Your task to perform on an android device: open app "DoorDash - Dasher" (install if not already installed) Image 0: 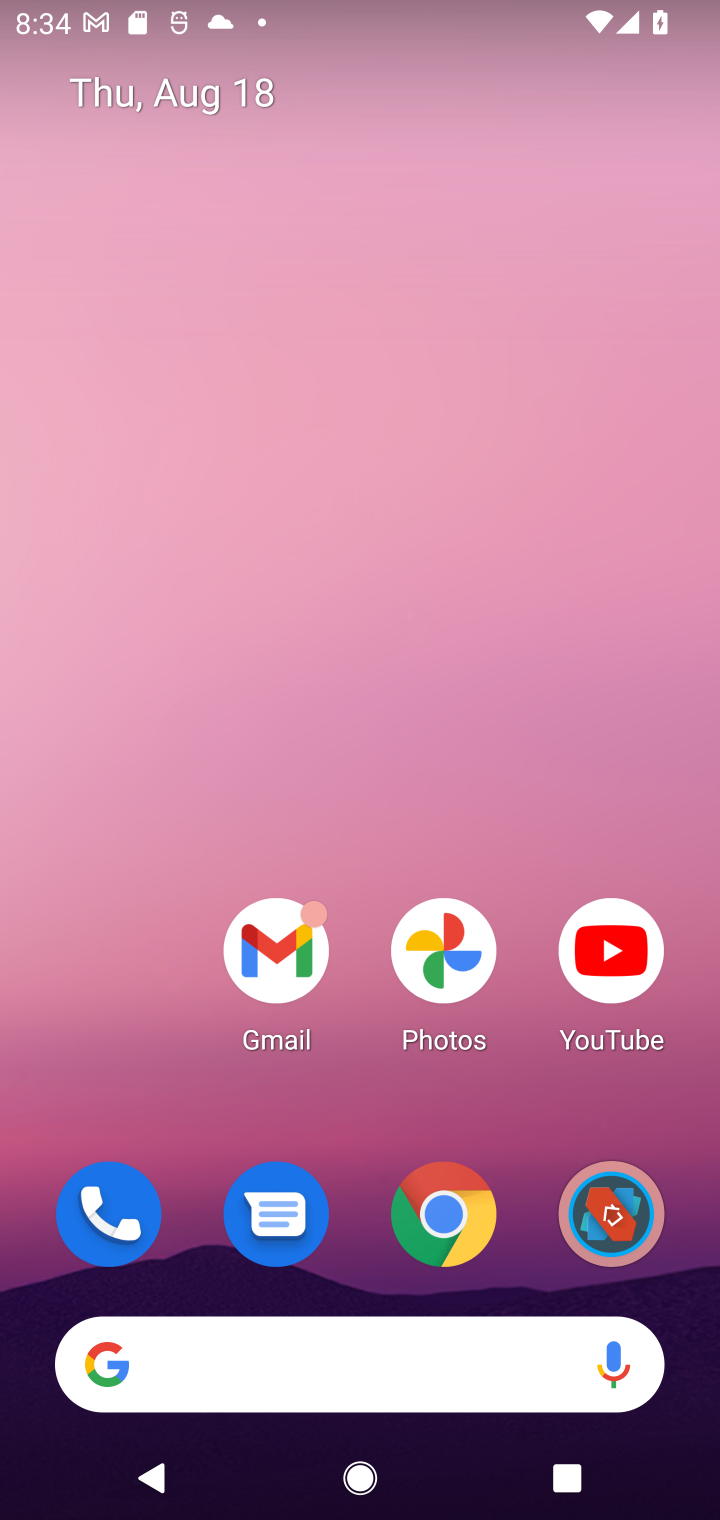
Step 0: drag from (423, 1057) to (452, 0)
Your task to perform on an android device: open app "DoorDash - Dasher" (install if not already installed) Image 1: 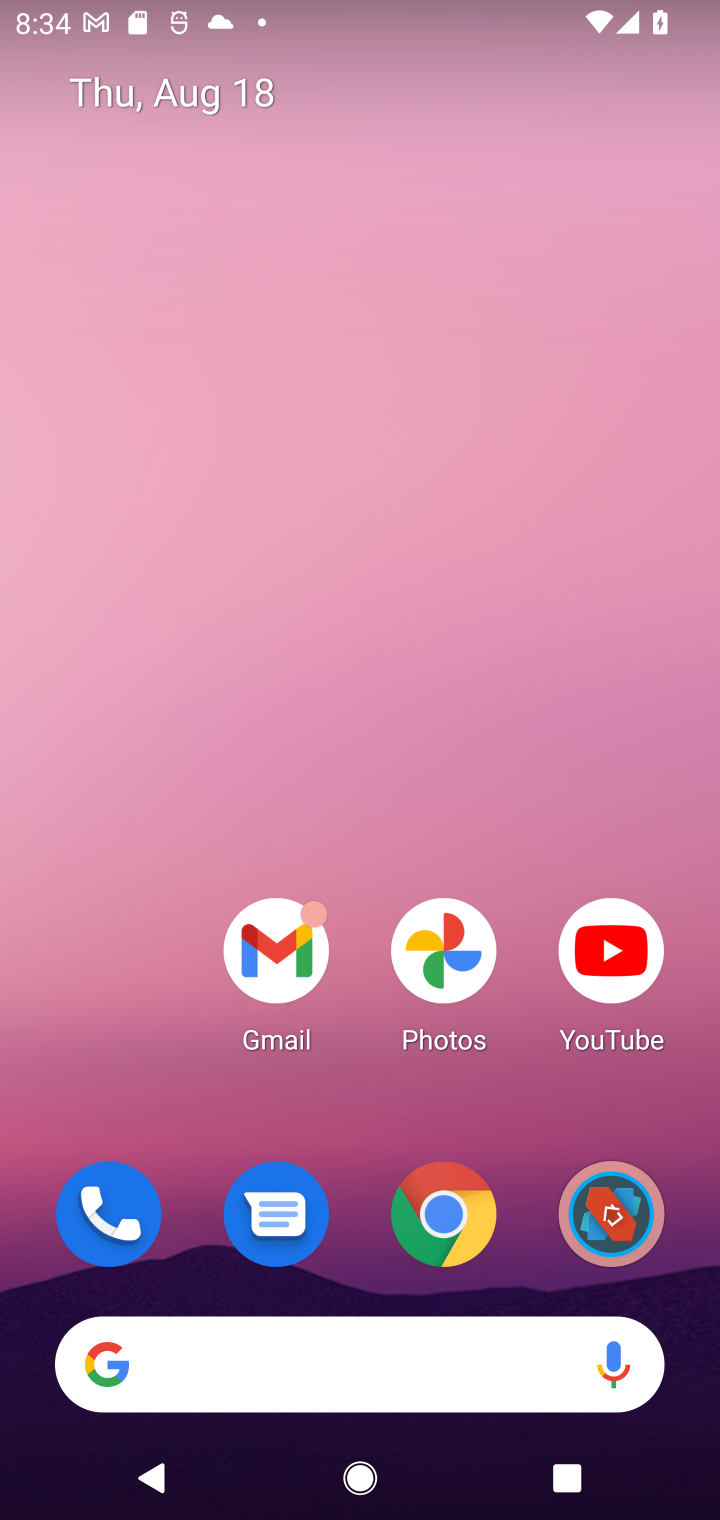
Step 1: drag from (158, 991) to (276, 99)
Your task to perform on an android device: open app "DoorDash - Dasher" (install if not already installed) Image 2: 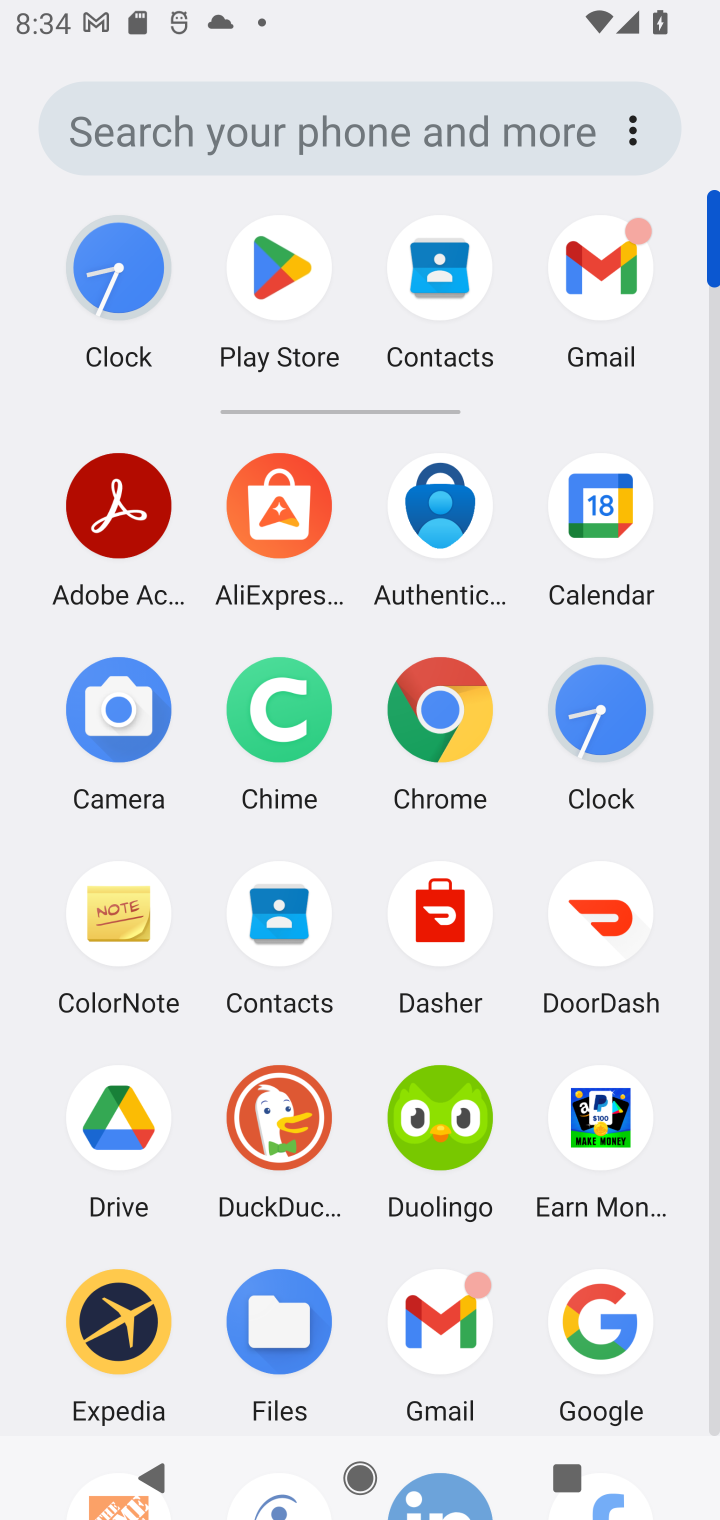
Step 2: click (237, 258)
Your task to perform on an android device: open app "DoorDash - Dasher" (install if not already installed) Image 3: 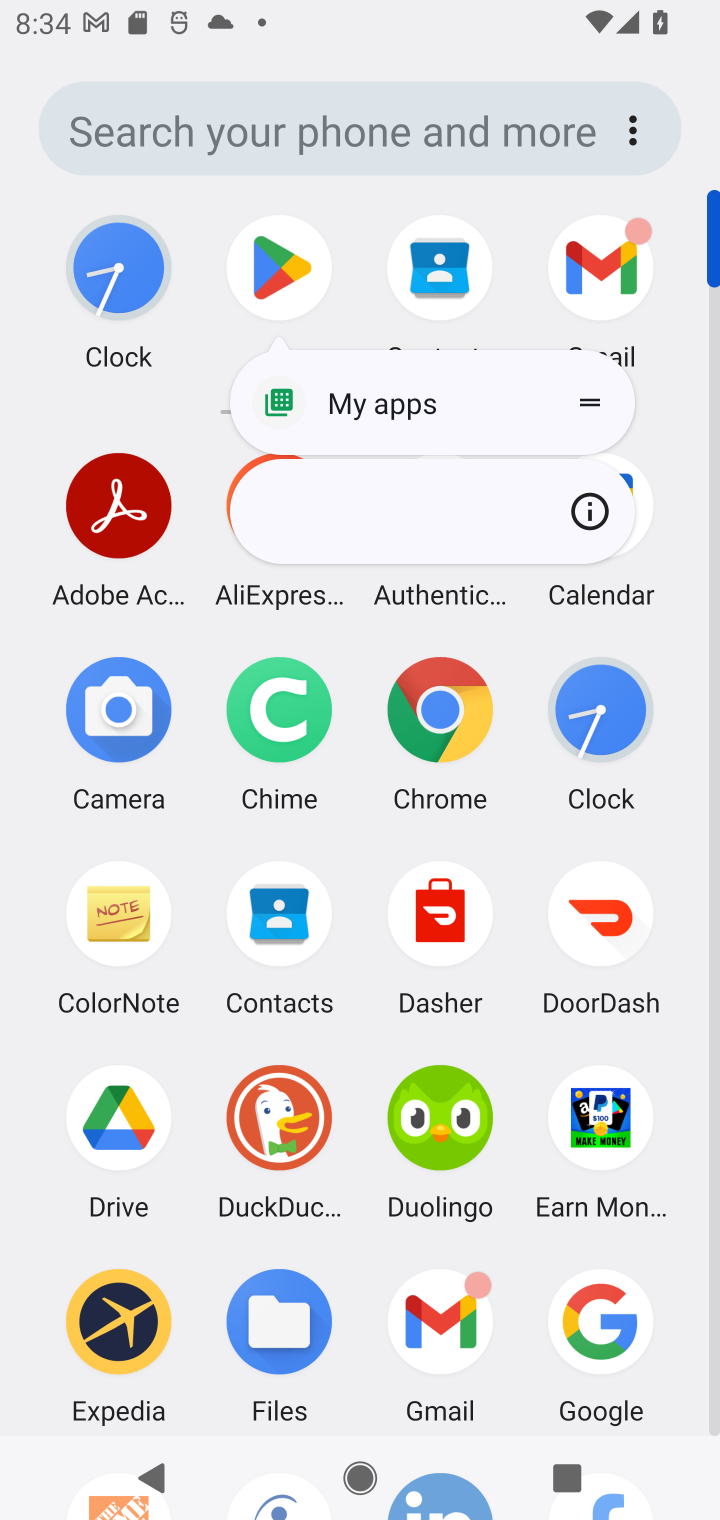
Step 3: click (268, 249)
Your task to perform on an android device: open app "DoorDash - Dasher" (install if not already installed) Image 4: 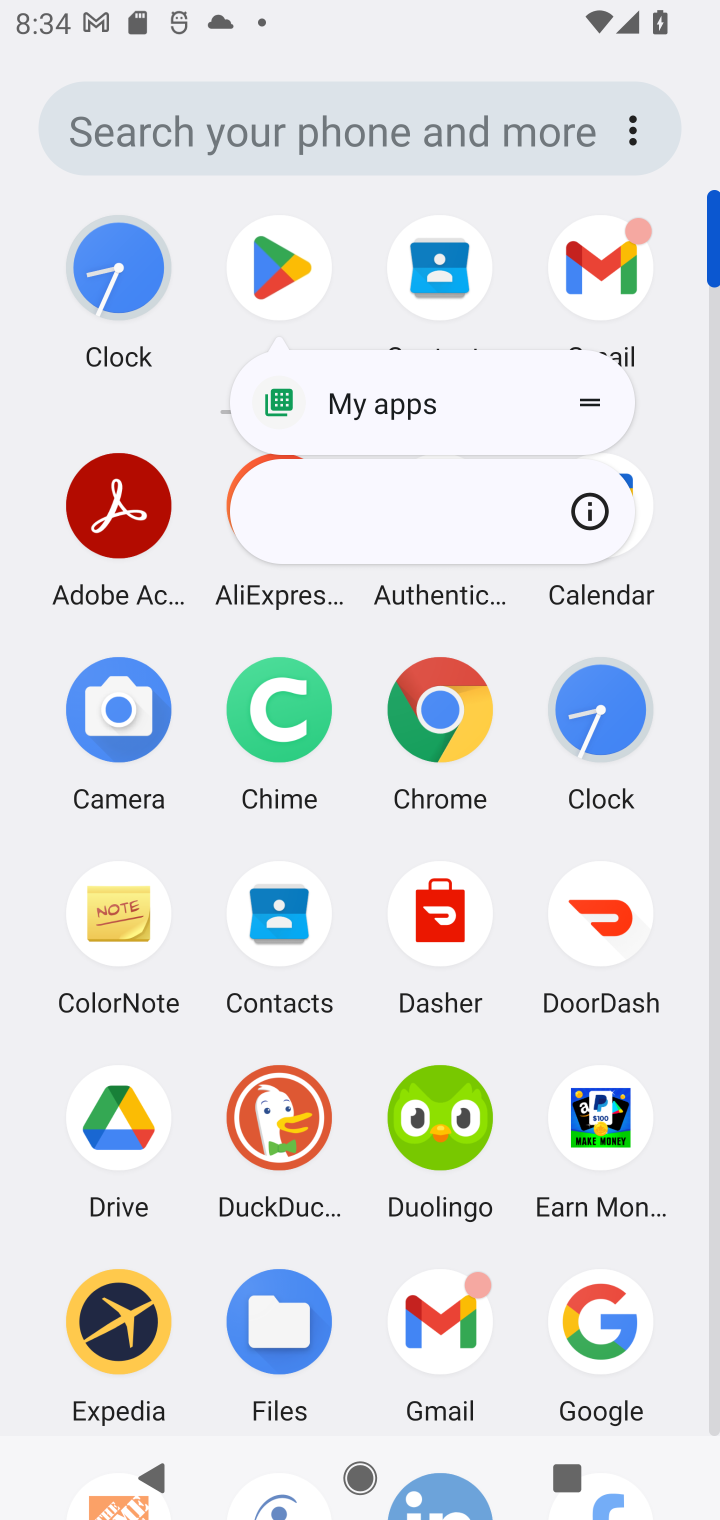
Step 4: click (280, 280)
Your task to perform on an android device: open app "DoorDash - Dasher" (install if not already installed) Image 5: 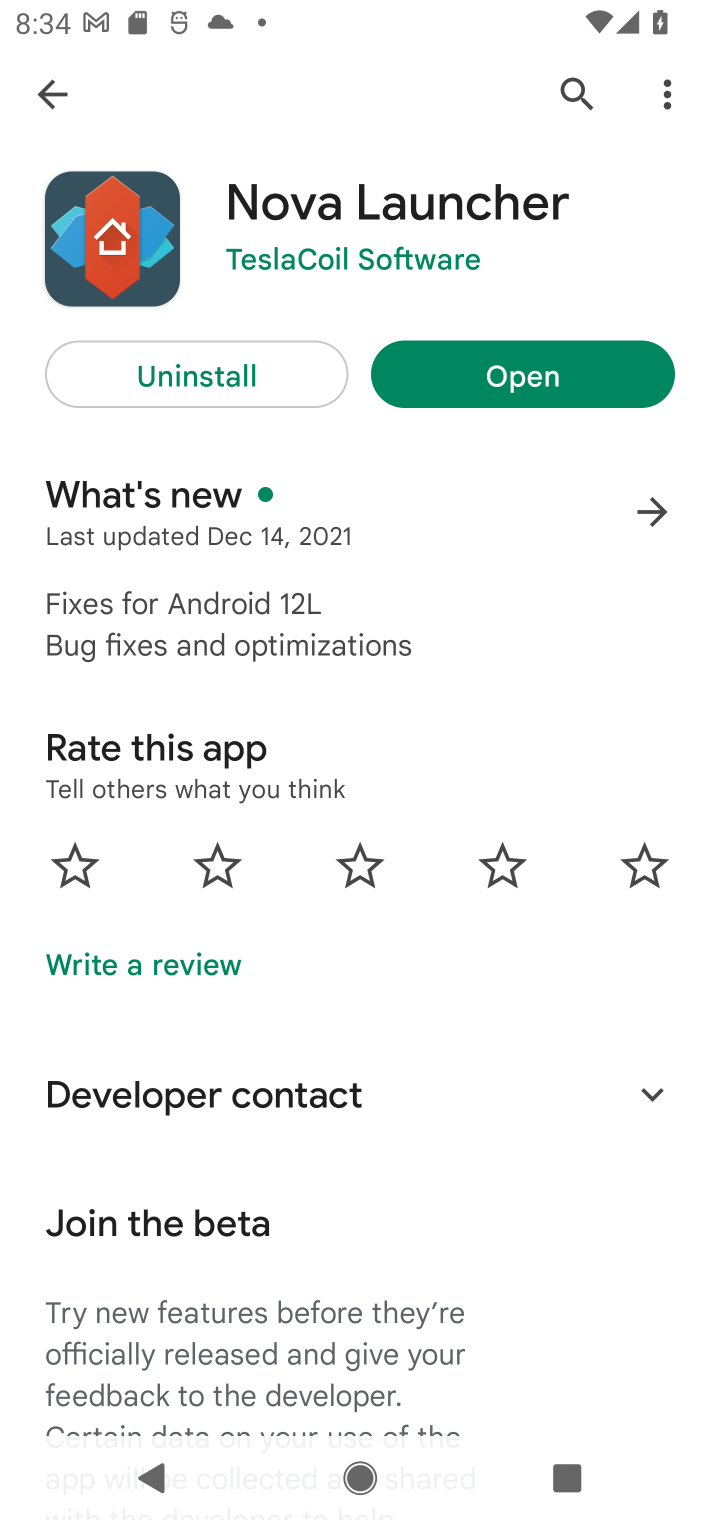
Step 5: click (539, 69)
Your task to perform on an android device: open app "DoorDash - Dasher" (install if not already installed) Image 6: 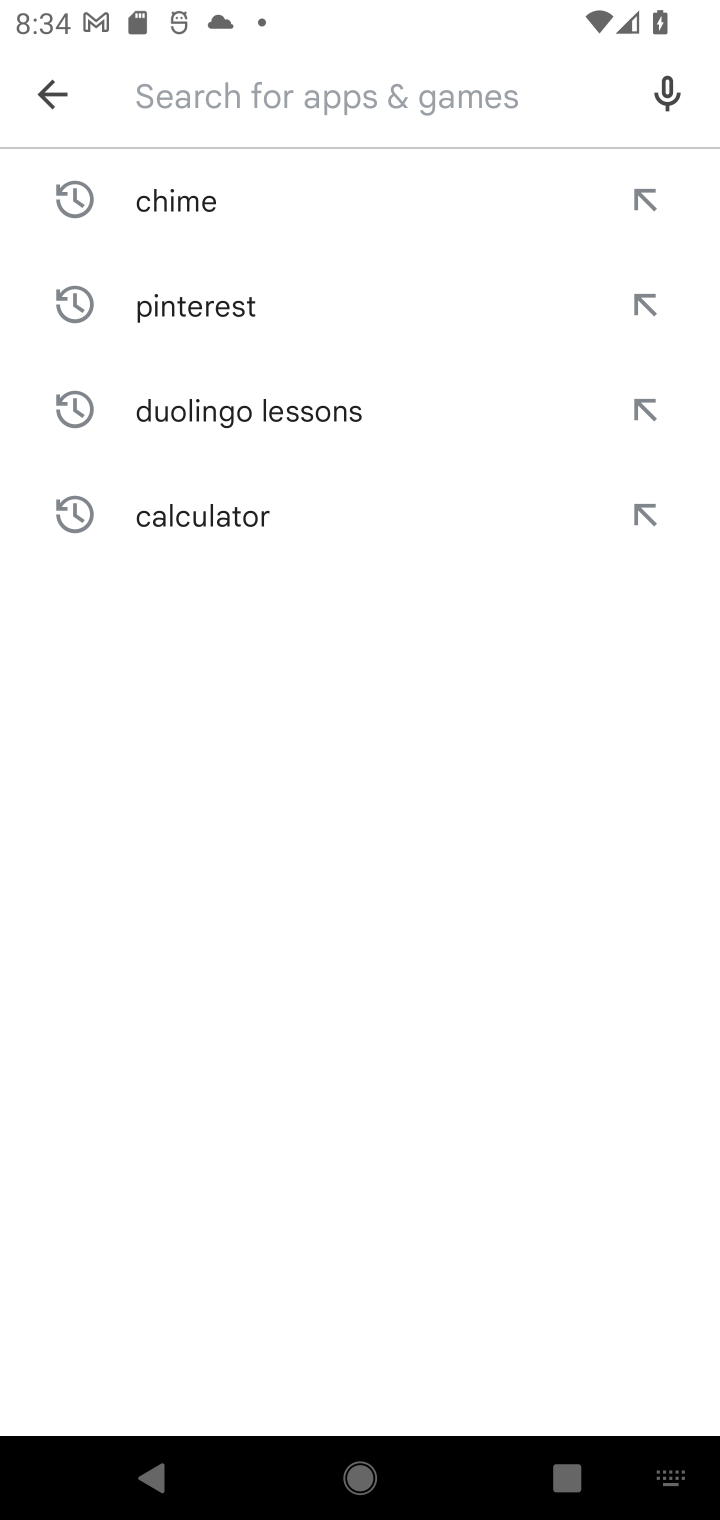
Step 6: type "door dash"
Your task to perform on an android device: open app "DoorDash - Dasher" (install if not already installed) Image 7: 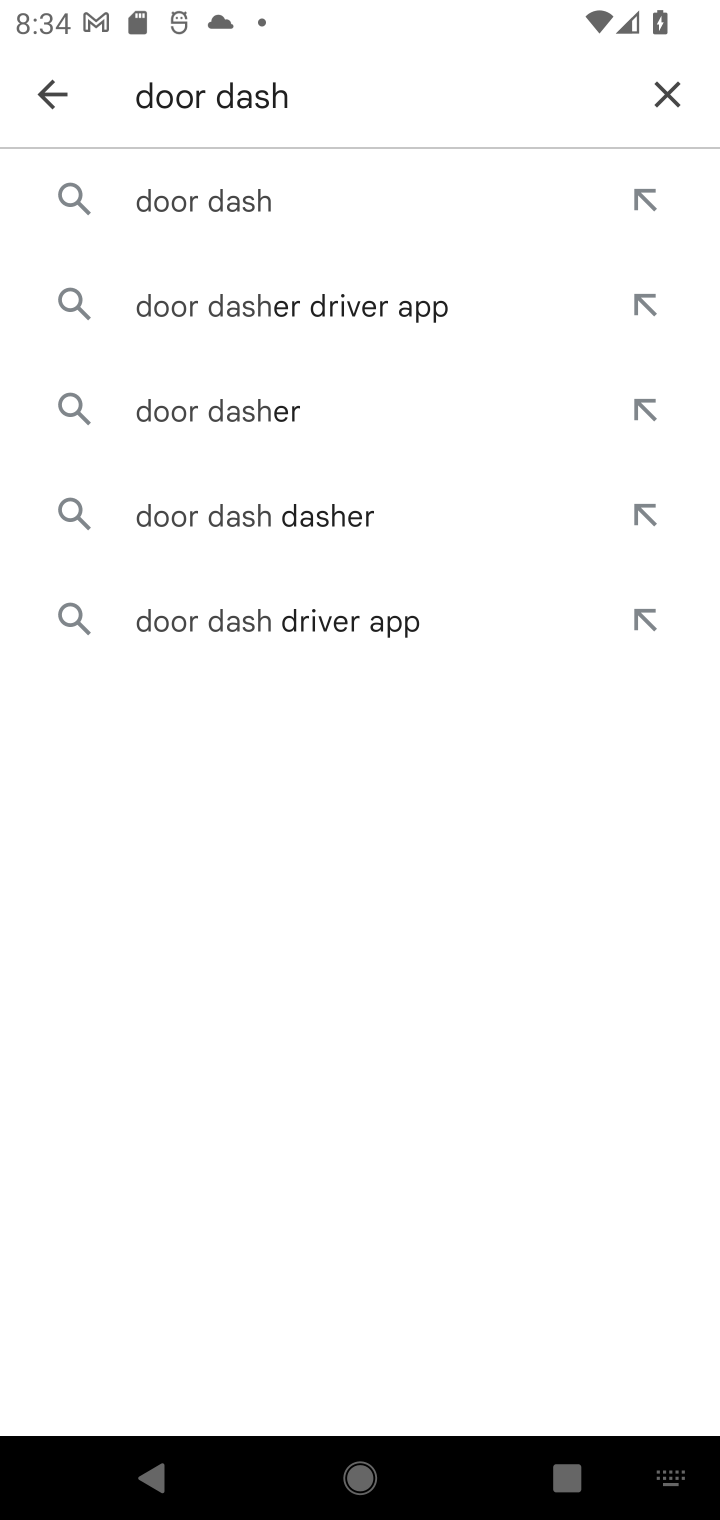
Step 7: click (275, 174)
Your task to perform on an android device: open app "DoorDash - Dasher" (install if not already installed) Image 8: 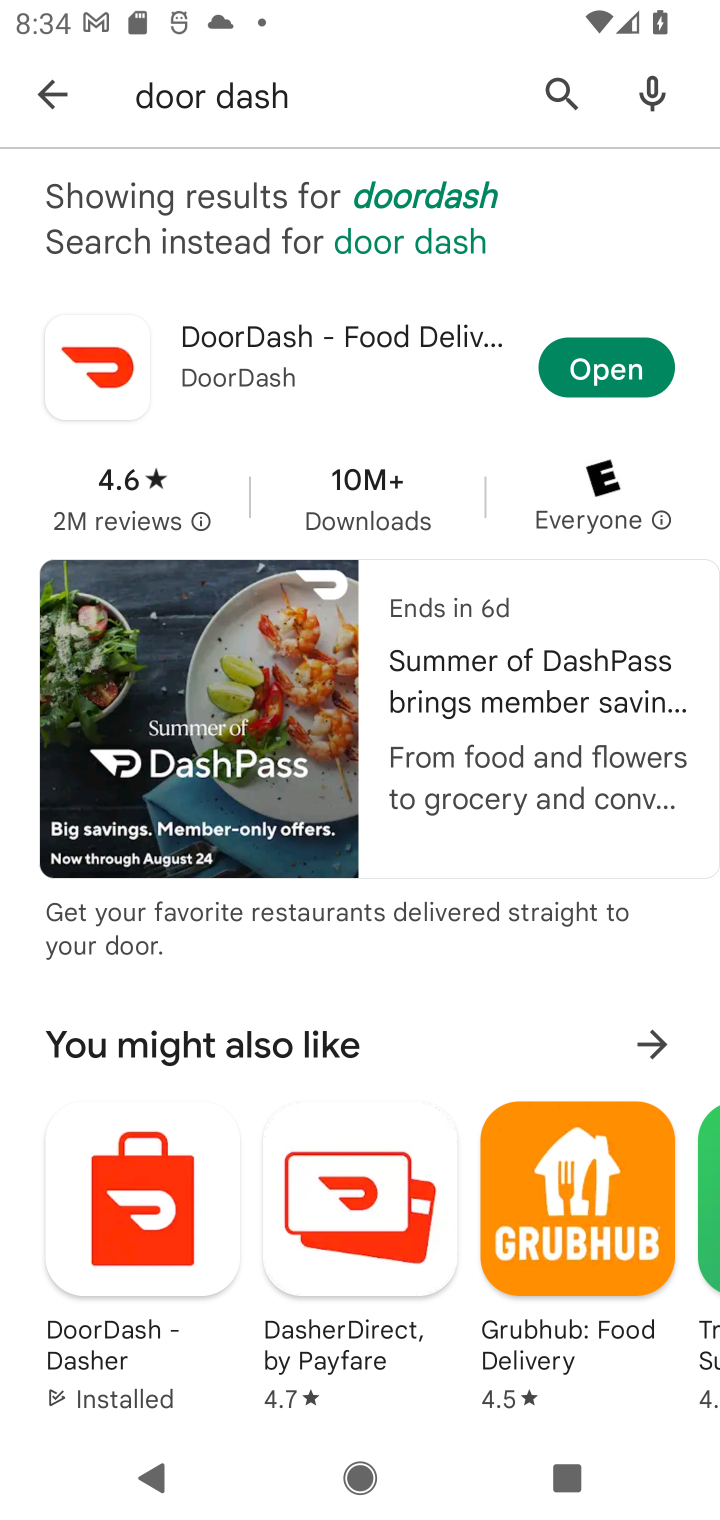
Step 8: click (106, 1228)
Your task to perform on an android device: open app "DoorDash - Dasher" (install if not already installed) Image 9: 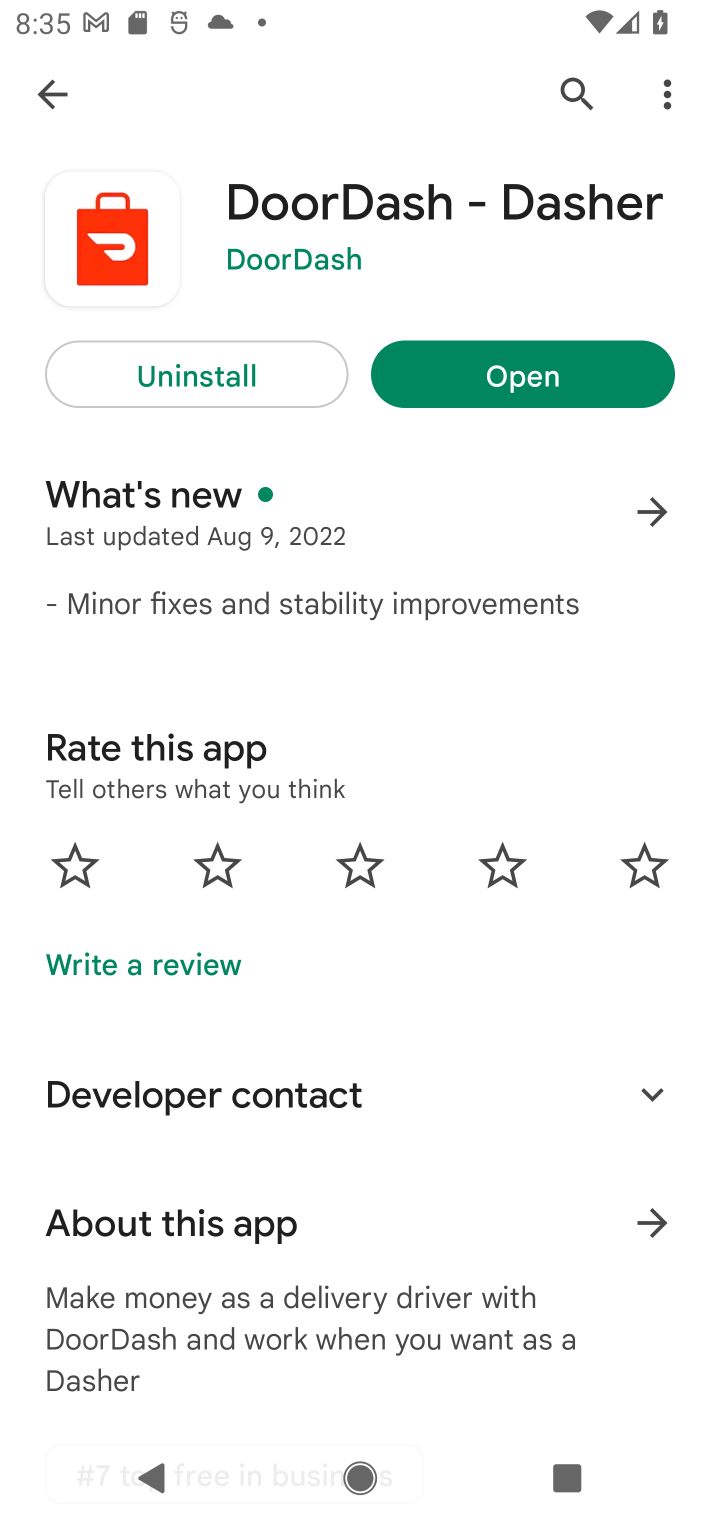
Step 9: click (496, 364)
Your task to perform on an android device: open app "DoorDash - Dasher" (install if not already installed) Image 10: 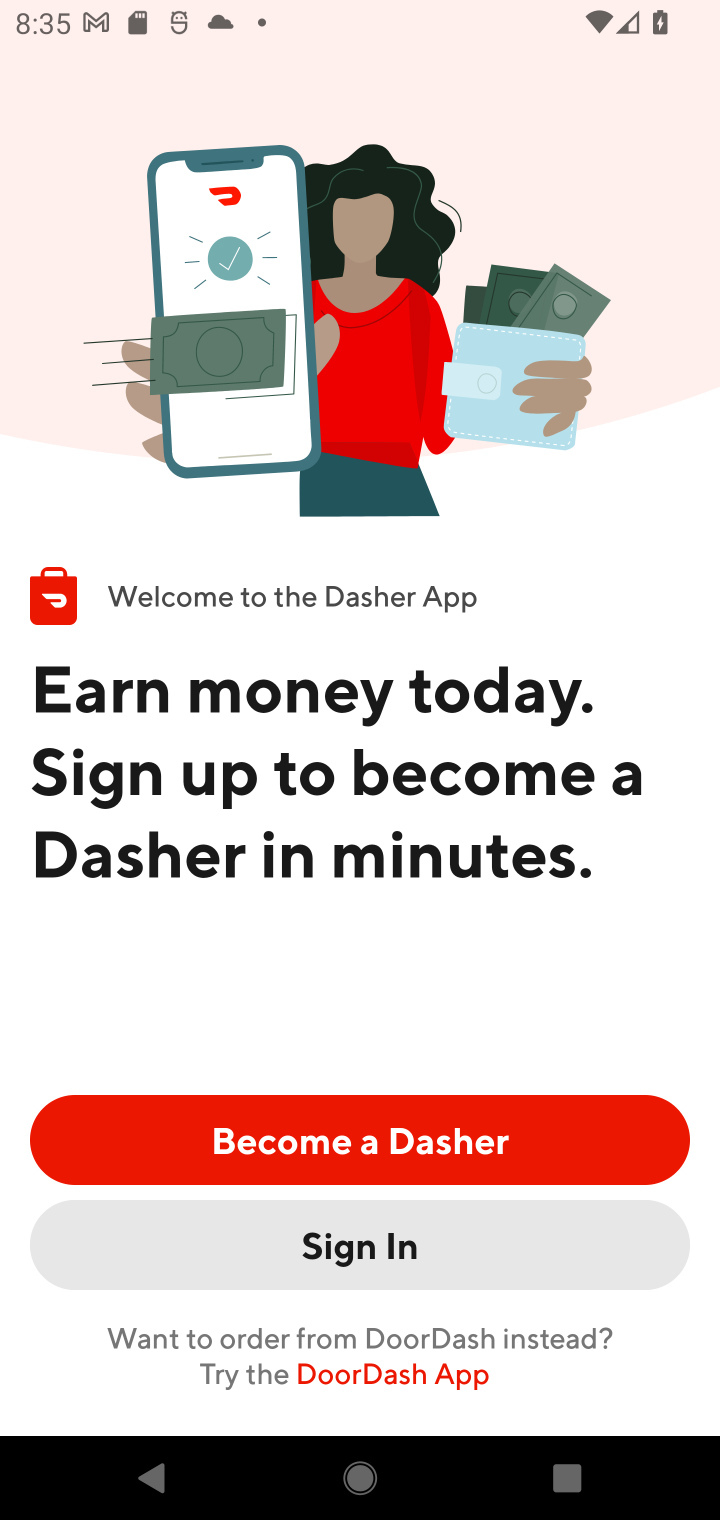
Step 10: task complete